Your task to perform on an android device: change timer sound Image 0: 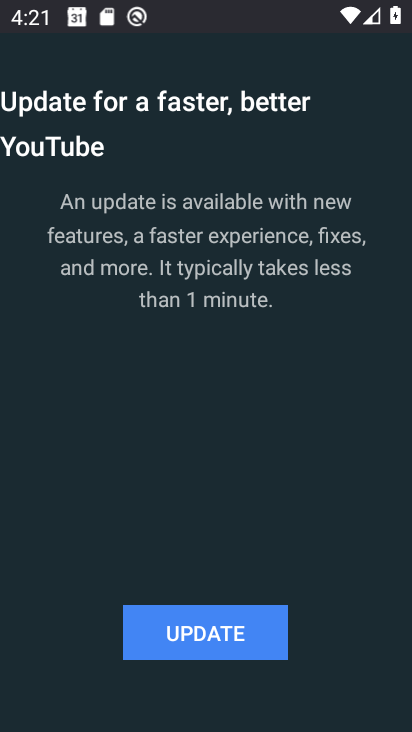
Step 0: press home button
Your task to perform on an android device: change timer sound Image 1: 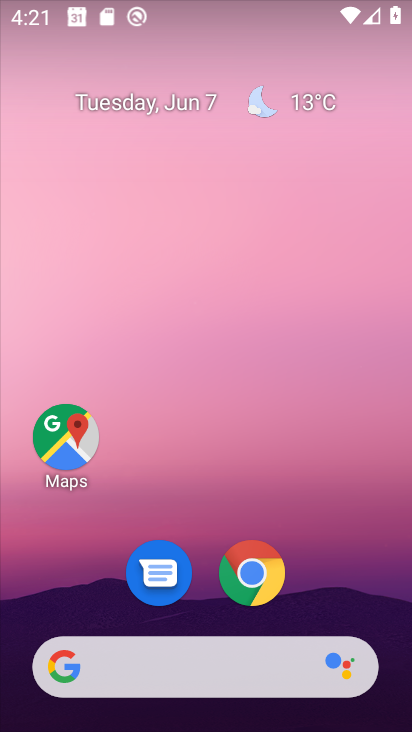
Step 1: drag from (385, 576) to (314, 38)
Your task to perform on an android device: change timer sound Image 2: 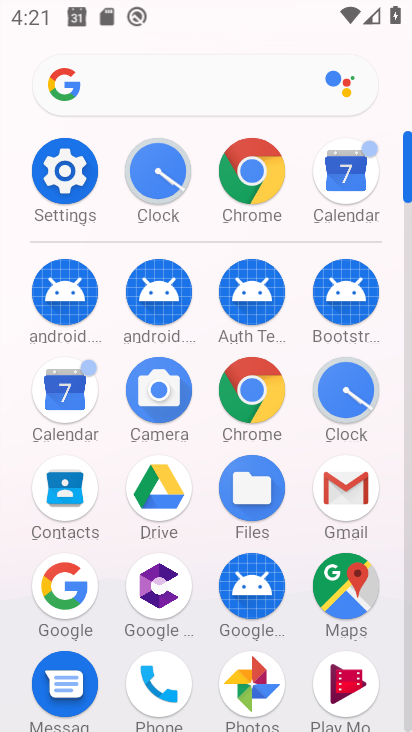
Step 2: click (68, 165)
Your task to perform on an android device: change timer sound Image 3: 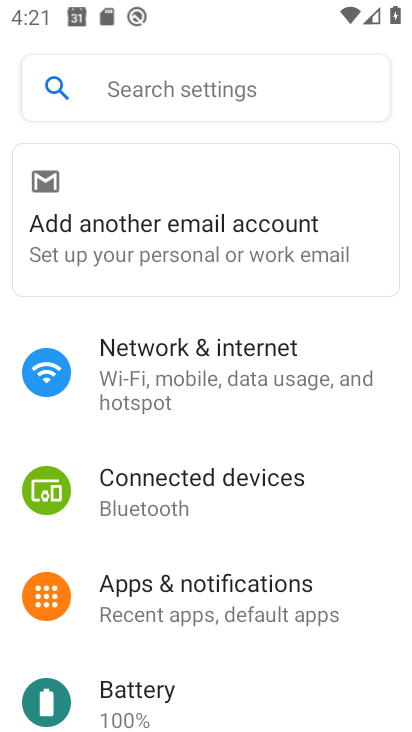
Step 3: press home button
Your task to perform on an android device: change timer sound Image 4: 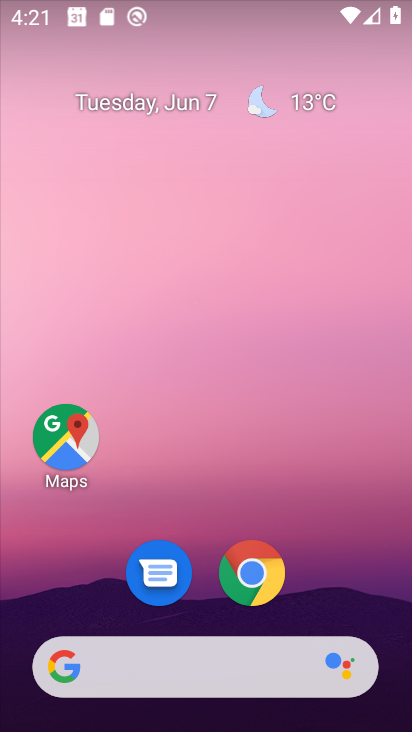
Step 4: drag from (355, 618) to (367, 50)
Your task to perform on an android device: change timer sound Image 5: 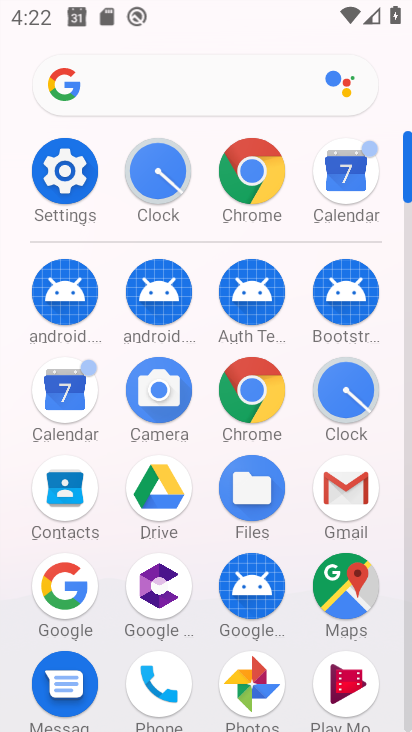
Step 5: click (349, 392)
Your task to perform on an android device: change timer sound Image 6: 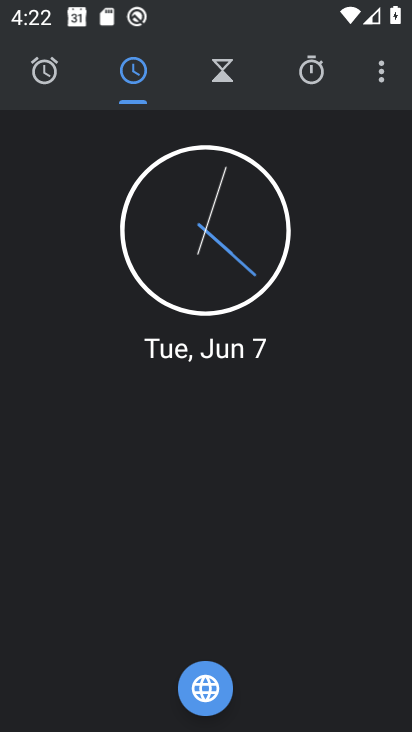
Step 6: click (372, 79)
Your task to perform on an android device: change timer sound Image 7: 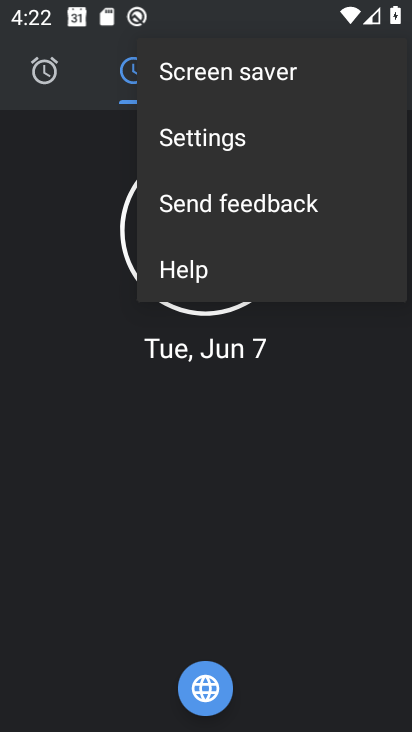
Step 7: click (208, 143)
Your task to perform on an android device: change timer sound Image 8: 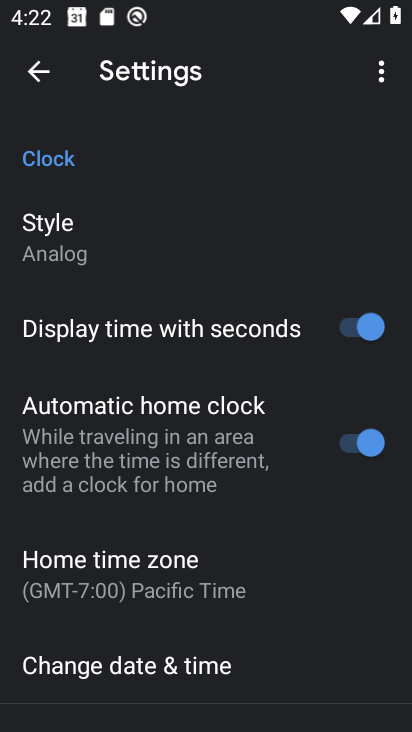
Step 8: drag from (207, 565) to (174, 214)
Your task to perform on an android device: change timer sound Image 9: 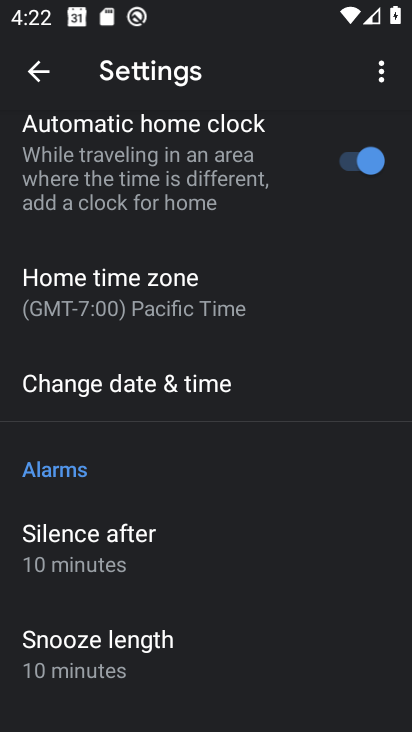
Step 9: drag from (202, 572) to (179, 286)
Your task to perform on an android device: change timer sound Image 10: 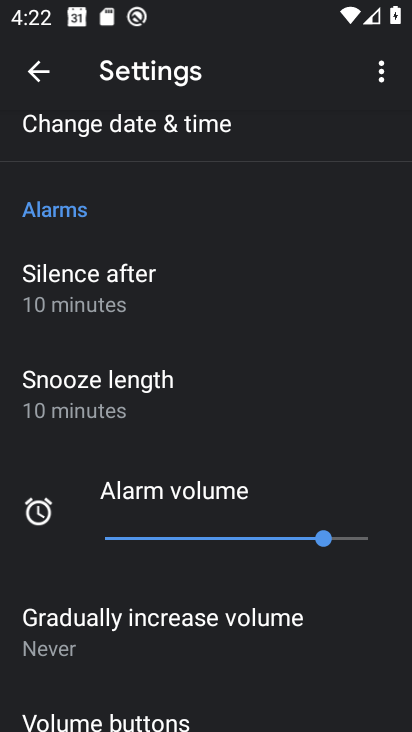
Step 10: drag from (204, 593) to (195, 232)
Your task to perform on an android device: change timer sound Image 11: 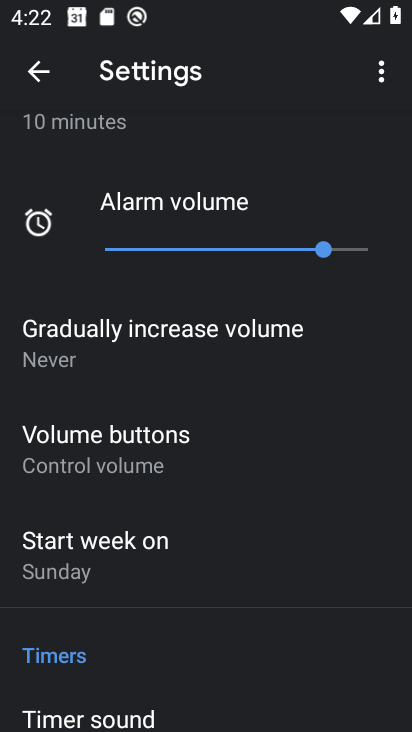
Step 11: drag from (103, 605) to (158, 172)
Your task to perform on an android device: change timer sound Image 12: 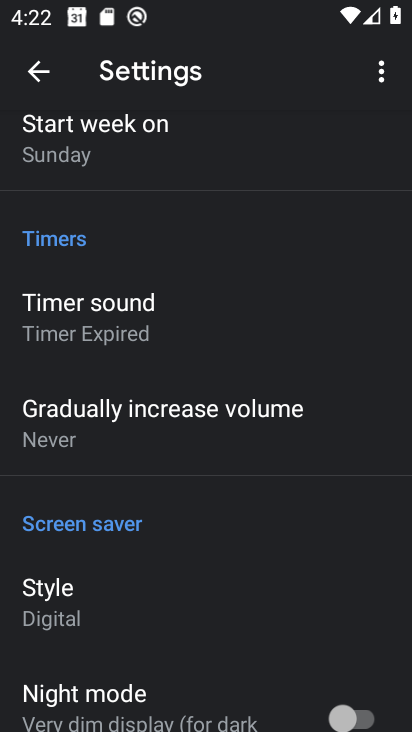
Step 12: click (150, 303)
Your task to perform on an android device: change timer sound Image 13: 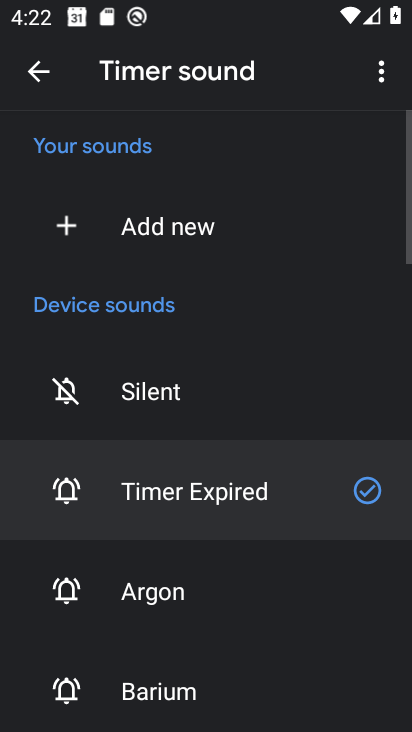
Step 13: click (166, 584)
Your task to perform on an android device: change timer sound Image 14: 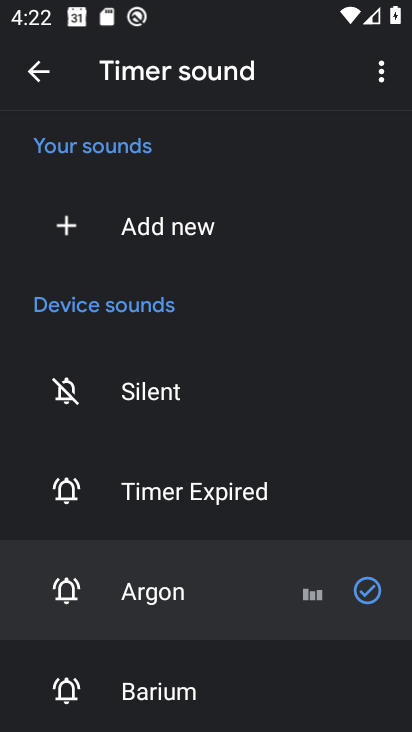
Step 14: task complete